Your task to perform on an android device: remove spam from my inbox in the gmail app Image 0: 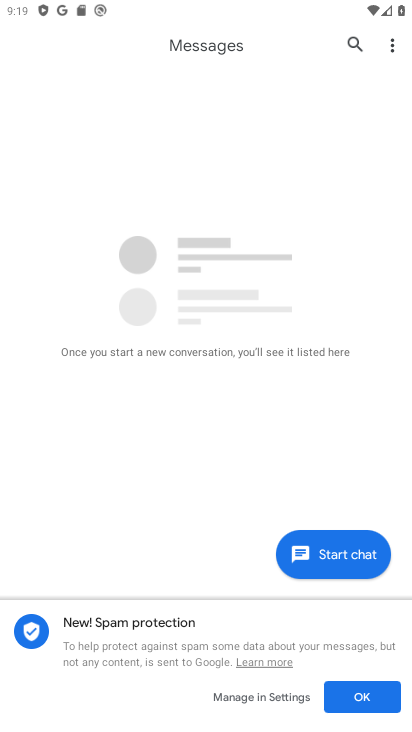
Step 0: press home button
Your task to perform on an android device: remove spam from my inbox in the gmail app Image 1: 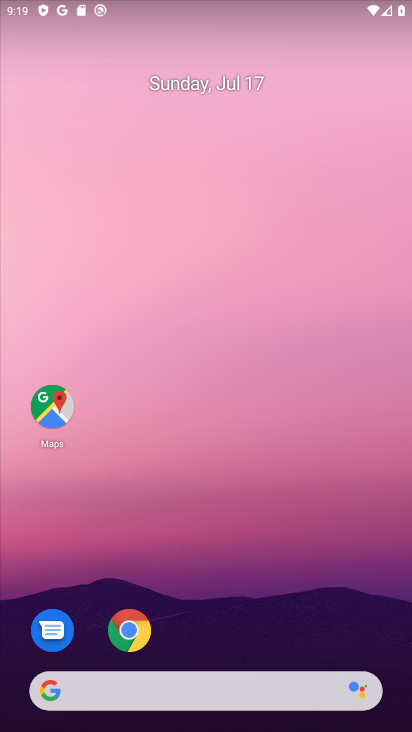
Step 1: drag from (190, 650) to (205, 3)
Your task to perform on an android device: remove spam from my inbox in the gmail app Image 2: 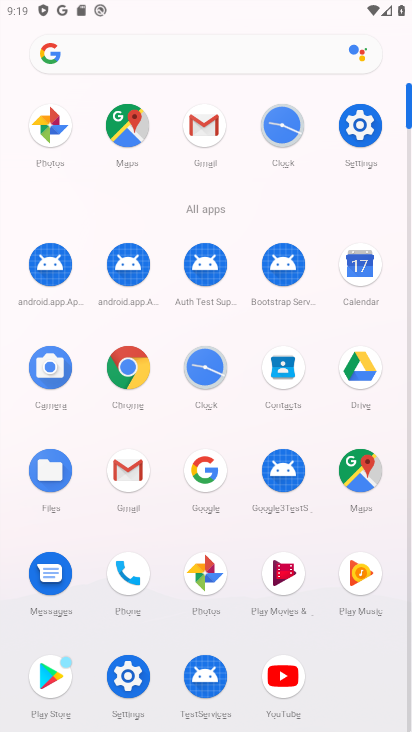
Step 2: click (201, 121)
Your task to perform on an android device: remove spam from my inbox in the gmail app Image 3: 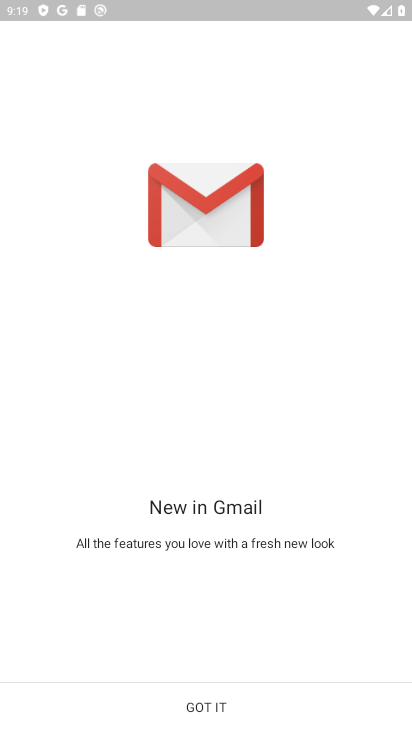
Step 3: click (196, 712)
Your task to perform on an android device: remove spam from my inbox in the gmail app Image 4: 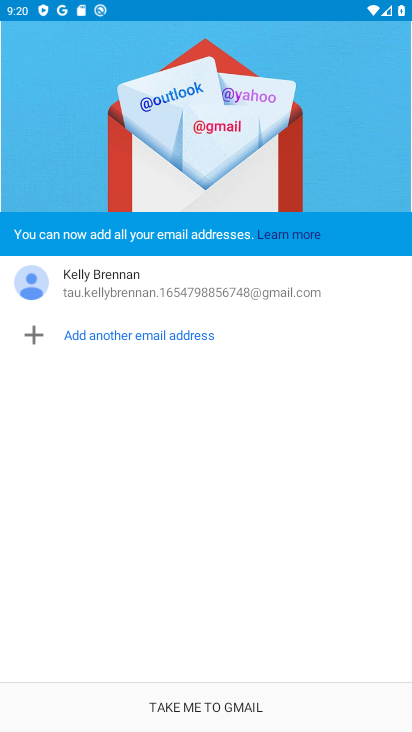
Step 4: click (209, 705)
Your task to perform on an android device: remove spam from my inbox in the gmail app Image 5: 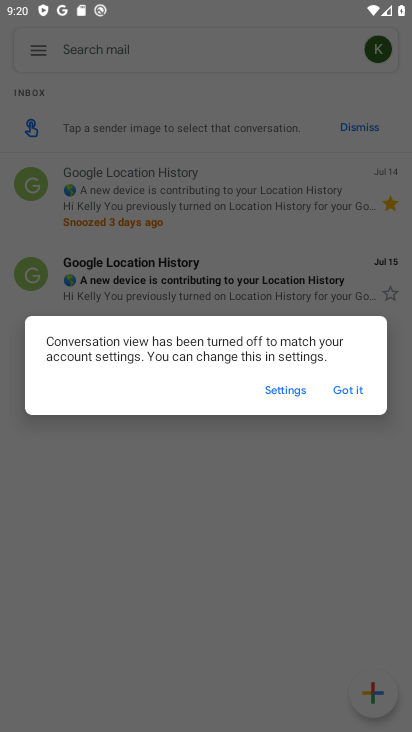
Step 5: click (351, 390)
Your task to perform on an android device: remove spam from my inbox in the gmail app Image 6: 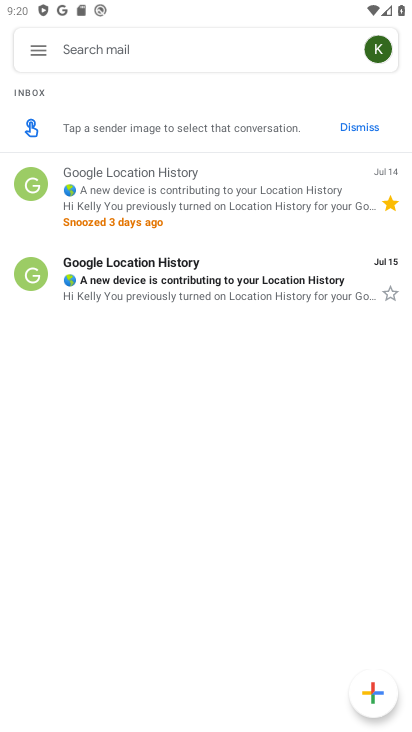
Step 6: click (33, 51)
Your task to perform on an android device: remove spam from my inbox in the gmail app Image 7: 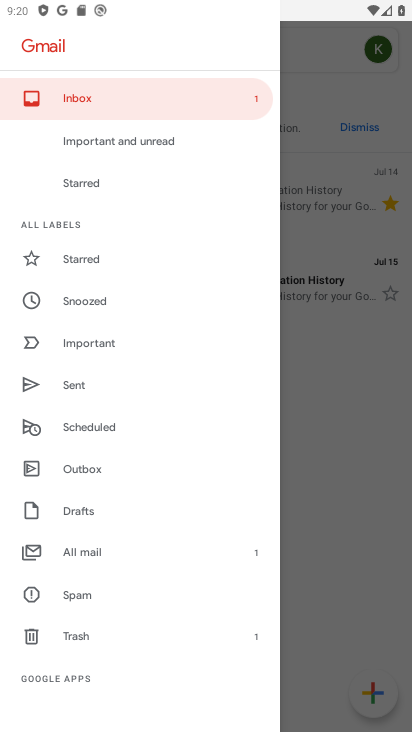
Step 7: click (91, 597)
Your task to perform on an android device: remove spam from my inbox in the gmail app Image 8: 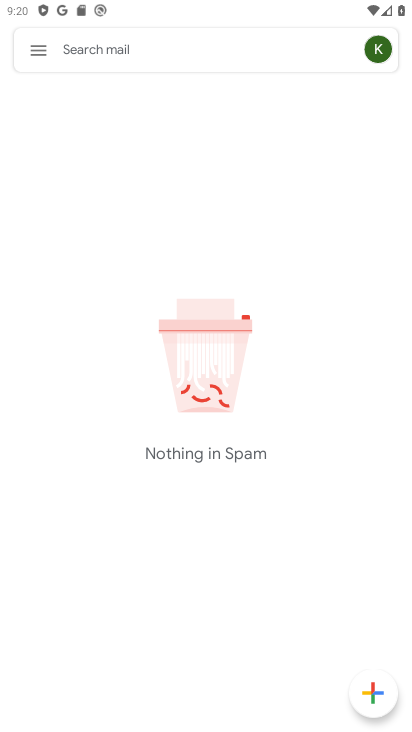
Step 8: task complete